Your task to perform on an android device: check android version Image 0: 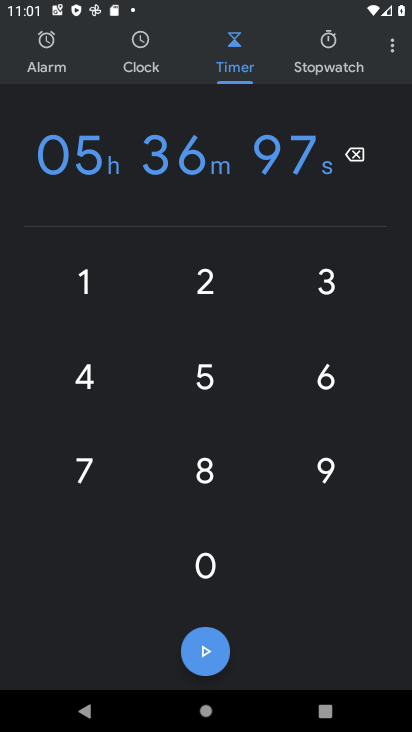
Step 0: press home button
Your task to perform on an android device: check android version Image 1: 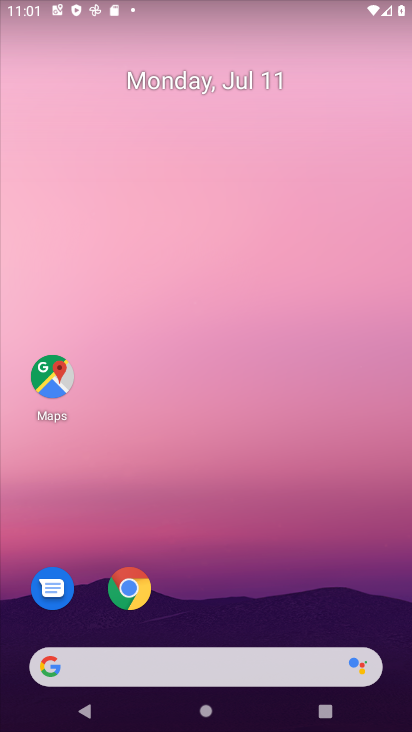
Step 1: drag from (119, 703) to (289, 12)
Your task to perform on an android device: check android version Image 2: 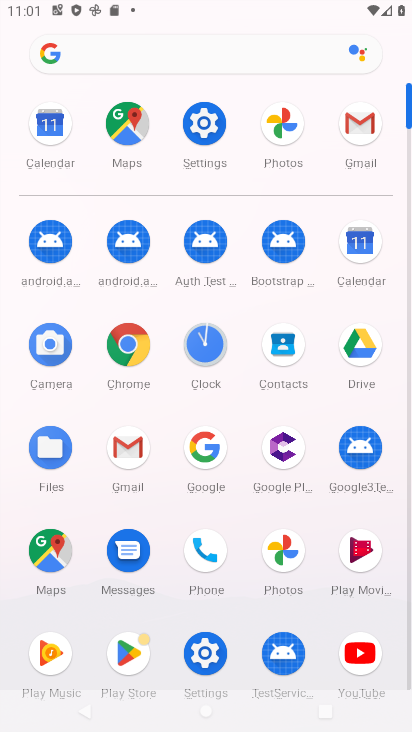
Step 2: click (215, 148)
Your task to perform on an android device: check android version Image 3: 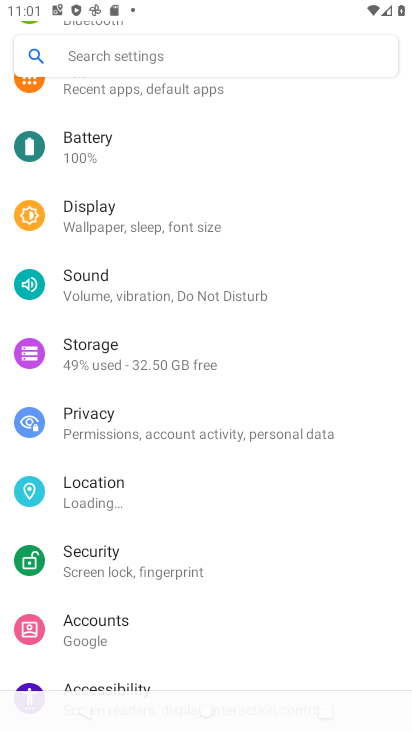
Step 3: drag from (262, 612) to (254, 35)
Your task to perform on an android device: check android version Image 4: 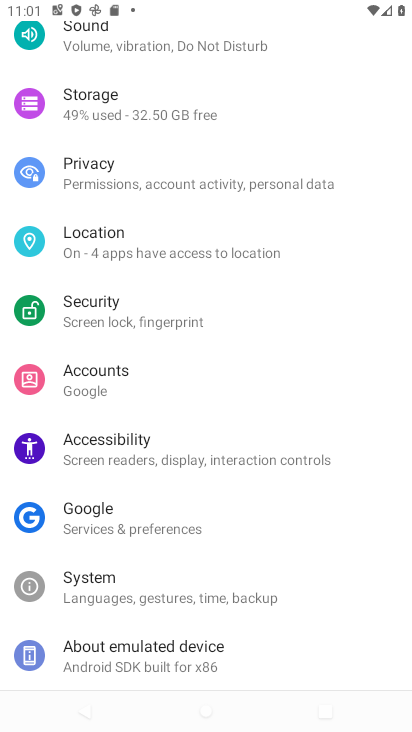
Step 4: drag from (279, 630) to (264, 92)
Your task to perform on an android device: check android version Image 5: 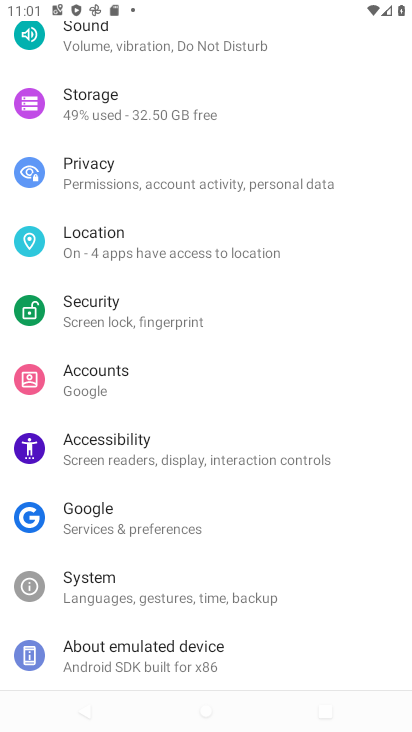
Step 5: click (142, 646)
Your task to perform on an android device: check android version Image 6: 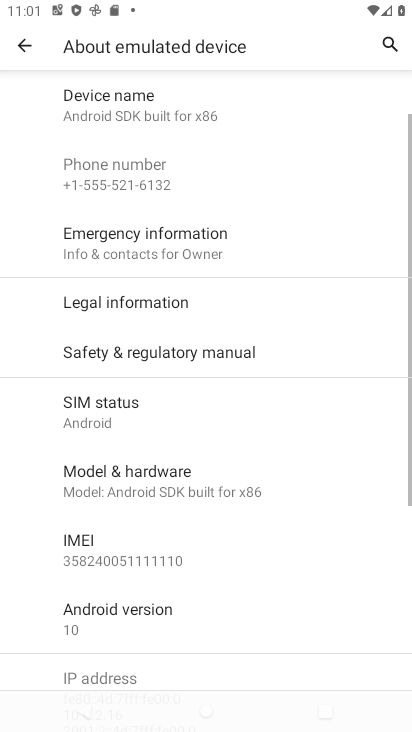
Step 6: task complete